Your task to perform on an android device: Open Youtube and go to the subscriptions tab Image 0: 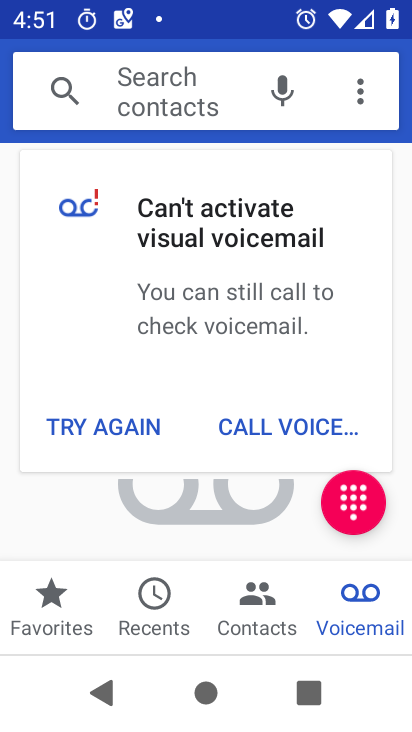
Step 0: press home button
Your task to perform on an android device: Open Youtube and go to the subscriptions tab Image 1: 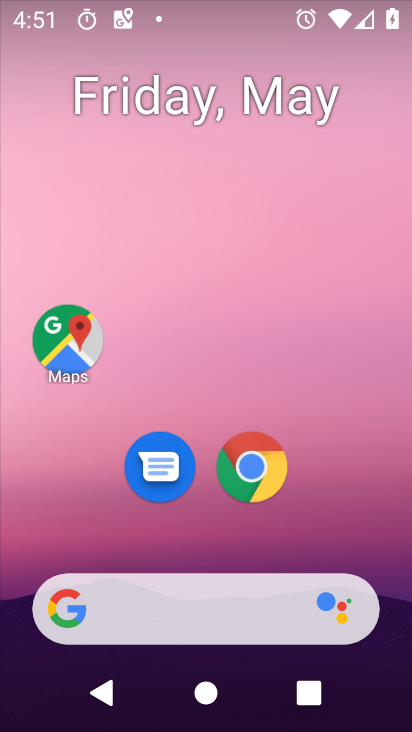
Step 1: drag from (375, 511) to (268, 128)
Your task to perform on an android device: Open Youtube and go to the subscriptions tab Image 2: 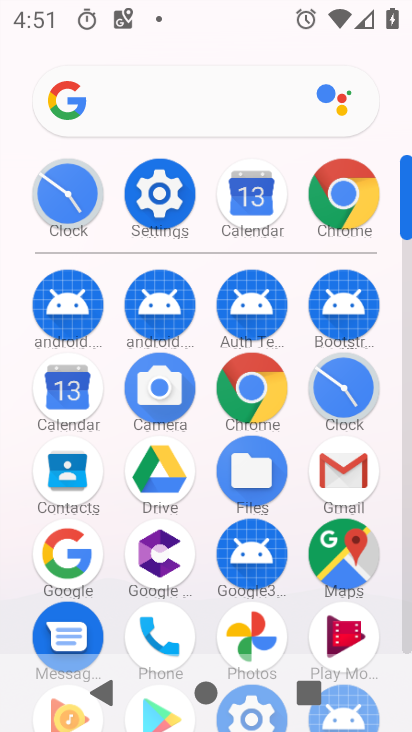
Step 2: drag from (350, 636) to (335, 207)
Your task to perform on an android device: Open Youtube and go to the subscriptions tab Image 3: 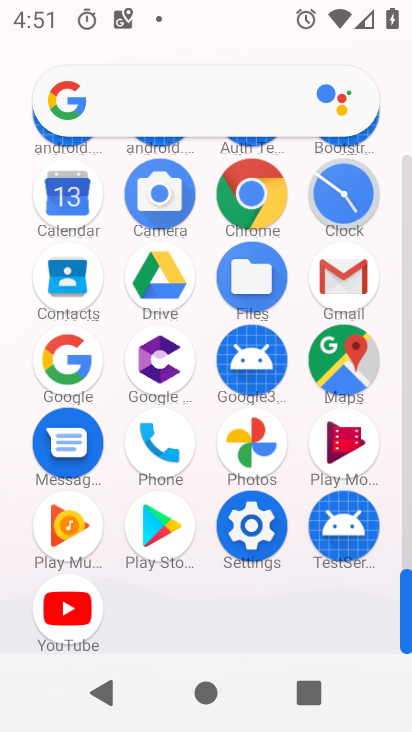
Step 3: click (88, 617)
Your task to perform on an android device: Open Youtube and go to the subscriptions tab Image 4: 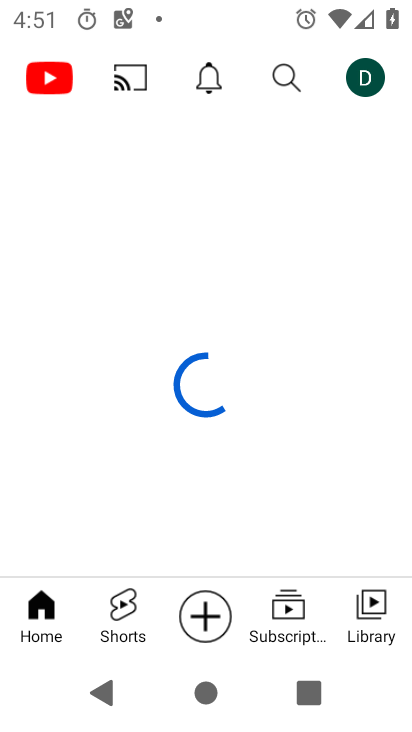
Step 4: click (305, 619)
Your task to perform on an android device: Open Youtube and go to the subscriptions tab Image 5: 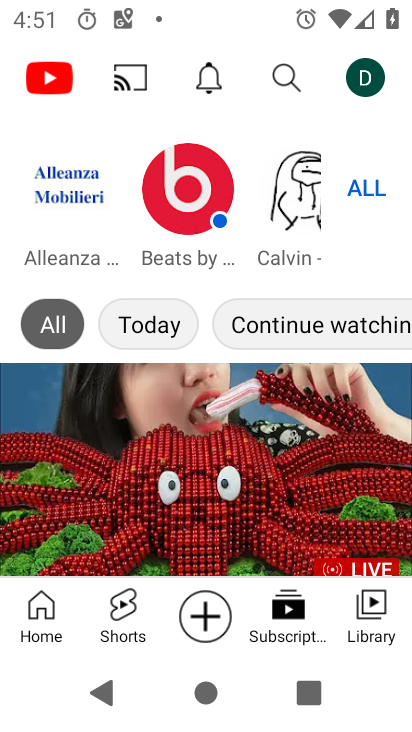
Step 5: task complete